Your task to perform on an android device: Open Chrome and go to settings Image 0: 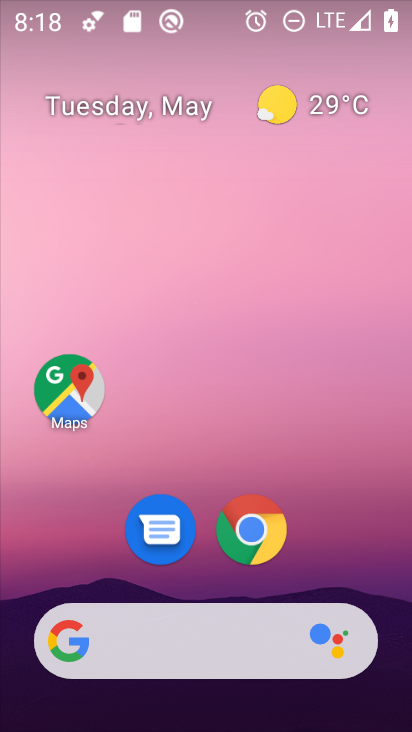
Step 0: drag from (403, 635) to (257, 106)
Your task to perform on an android device: Open Chrome and go to settings Image 1: 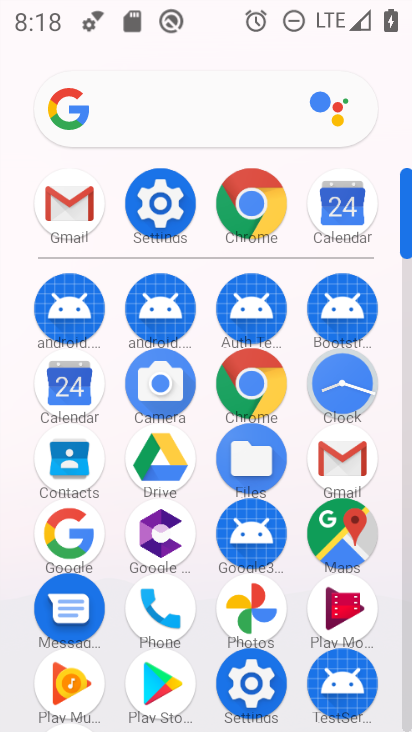
Step 1: click (251, 221)
Your task to perform on an android device: Open Chrome and go to settings Image 2: 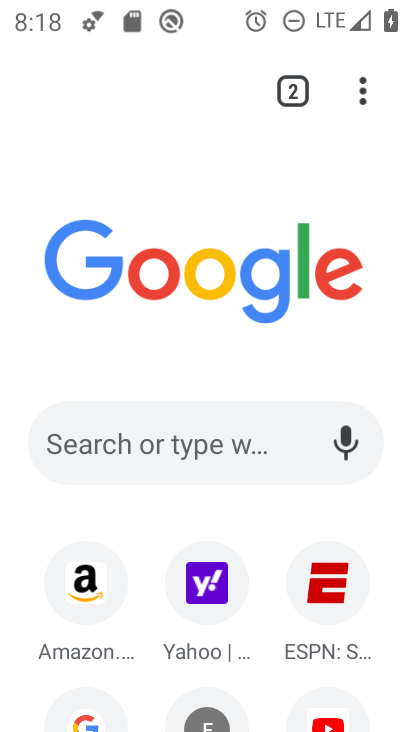
Step 2: click (362, 86)
Your task to perform on an android device: Open Chrome and go to settings Image 3: 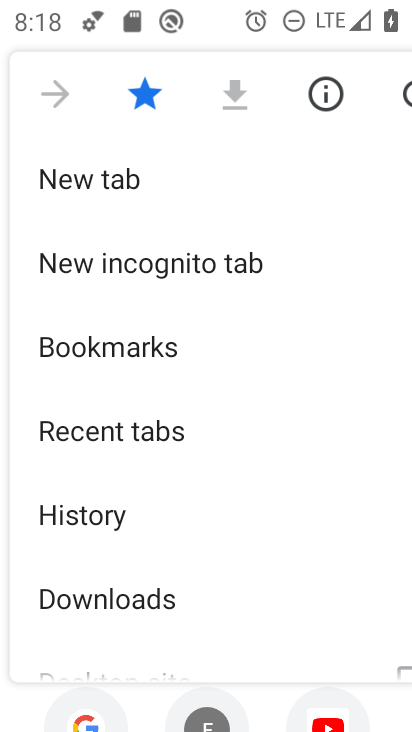
Step 3: drag from (133, 608) to (152, 246)
Your task to perform on an android device: Open Chrome and go to settings Image 4: 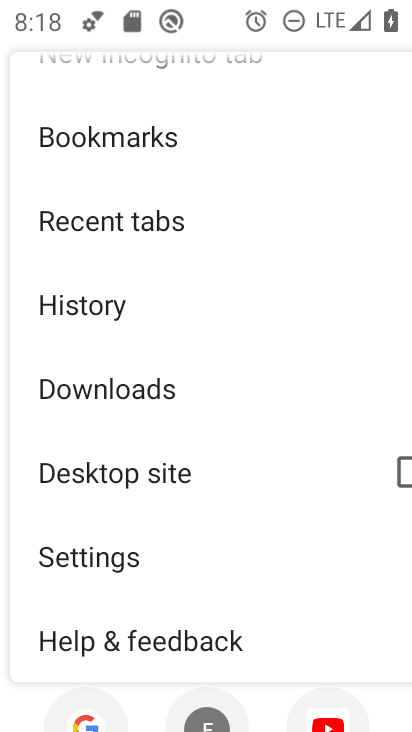
Step 4: click (124, 565)
Your task to perform on an android device: Open Chrome and go to settings Image 5: 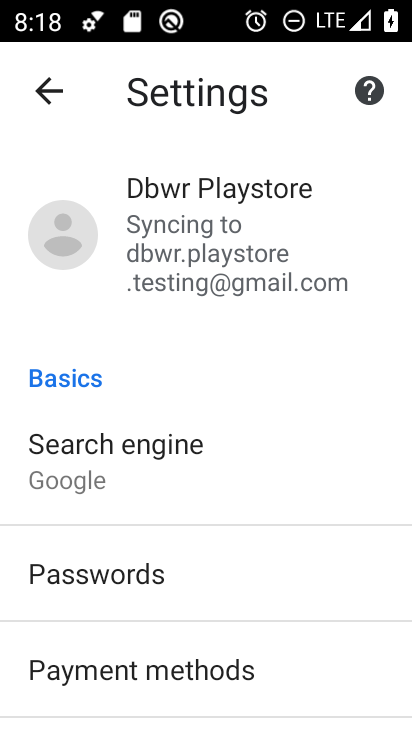
Step 5: task complete